Your task to perform on an android device: open chrome privacy settings Image 0: 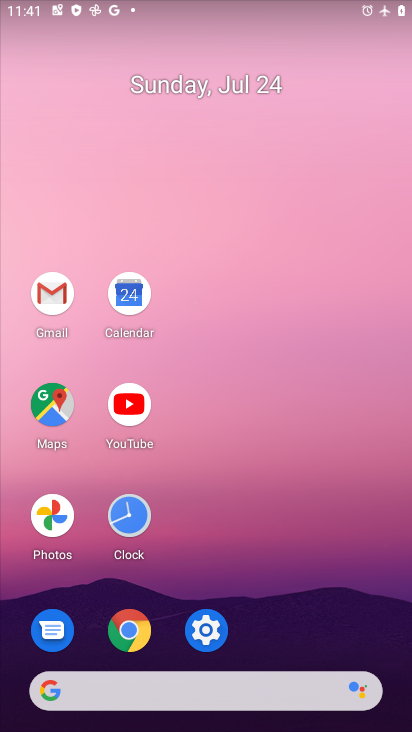
Step 0: click (128, 627)
Your task to perform on an android device: open chrome privacy settings Image 1: 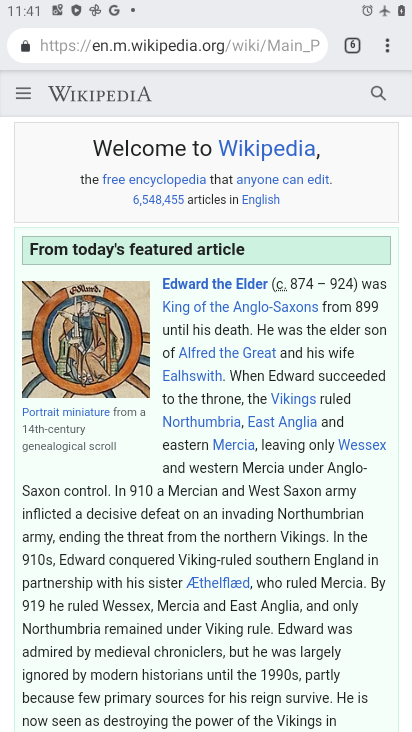
Step 1: click (386, 42)
Your task to perform on an android device: open chrome privacy settings Image 2: 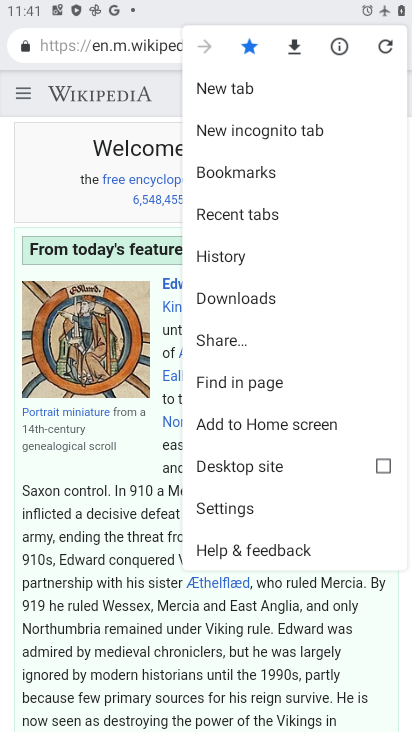
Step 2: click (214, 505)
Your task to perform on an android device: open chrome privacy settings Image 3: 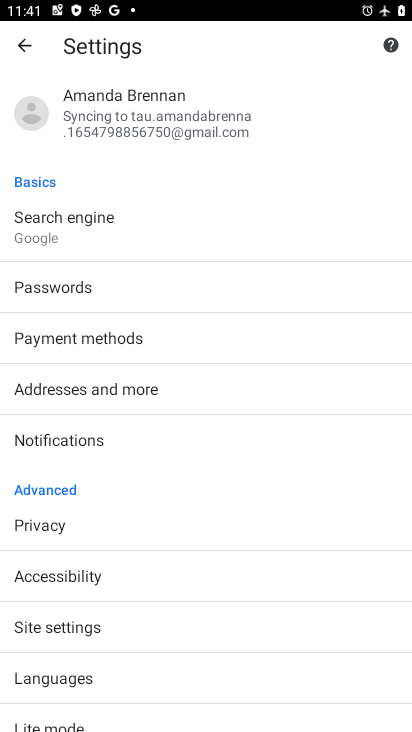
Step 3: click (42, 526)
Your task to perform on an android device: open chrome privacy settings Image 4: 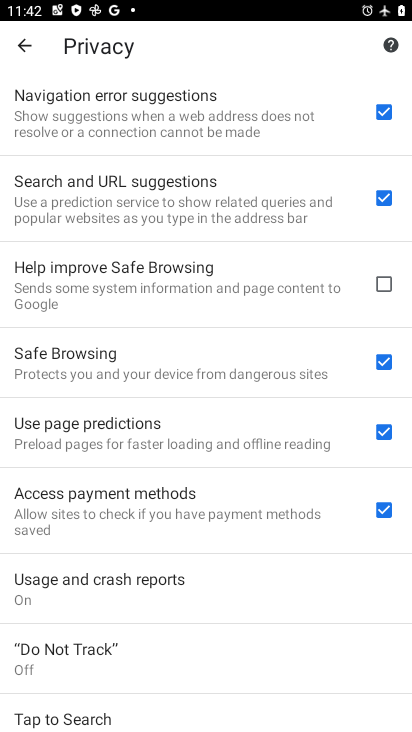
Step 4: task complete